Your task to perform on an android device: Open ESPN.com Image 0: 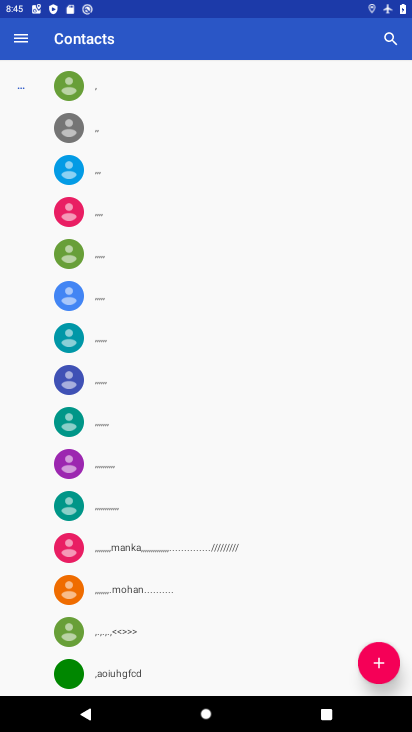
Step 0: press home button
Your task to perform on an android device: Open ESPN.com Image 1: 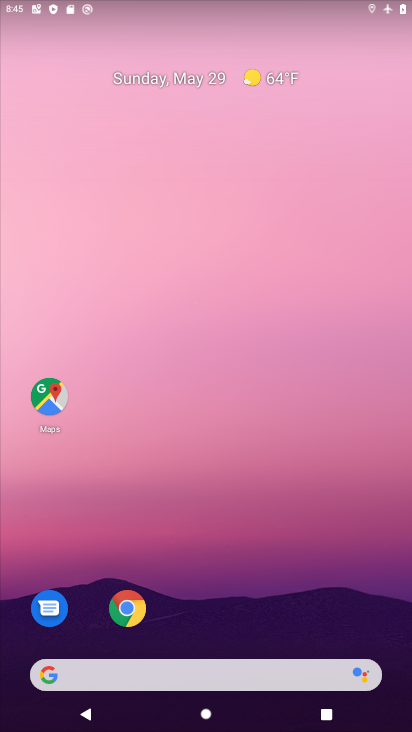
Step 1: click (130, 622)
Your task to perform on an android device: Open ESPN.com Image 2: 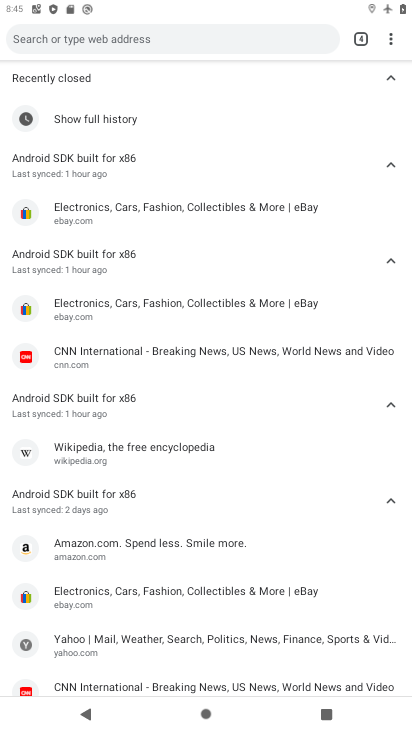
Step 2: click (385, 42)
Your task to perform on an android device: Open ESPN.com Image 3: 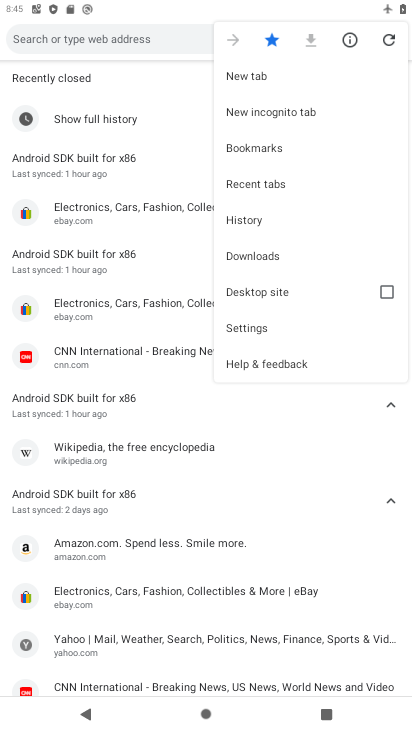
Step 3: click (250, 68)
Your task to perform on an android device: Open ESPN.com Image 4: 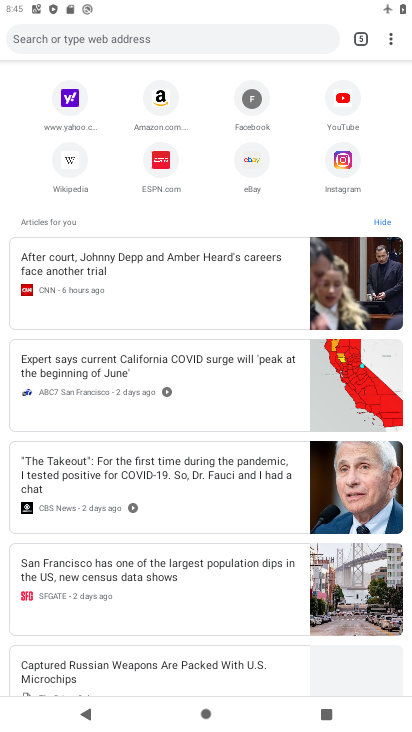
Step 4: click (159, 168)
Your task to perform on an android device: Open ESPN.com Image 5: 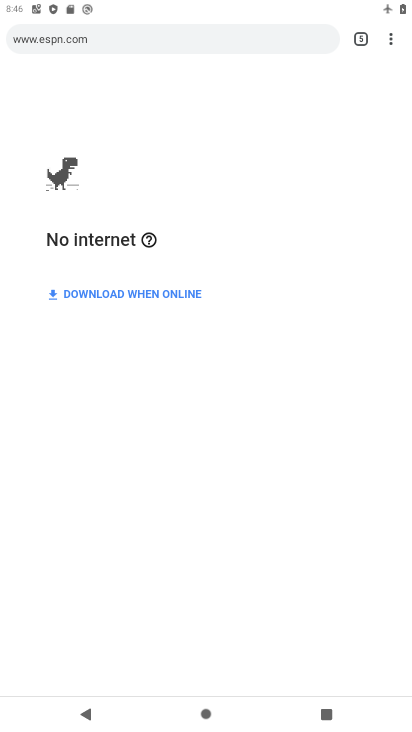
Step 5: task complete